Your task to perform on an android device: Search for vegetarian restaurants on Maps Image 0: 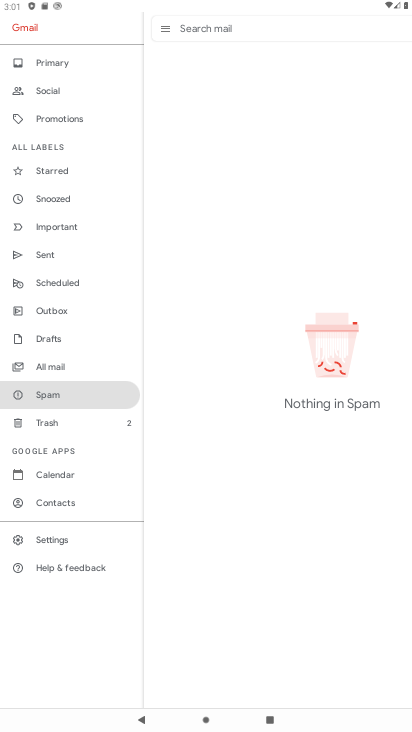
Step 0: press home button
Your task to perform on an android device: Search for vegetarian restaurants on Maps Image 1: 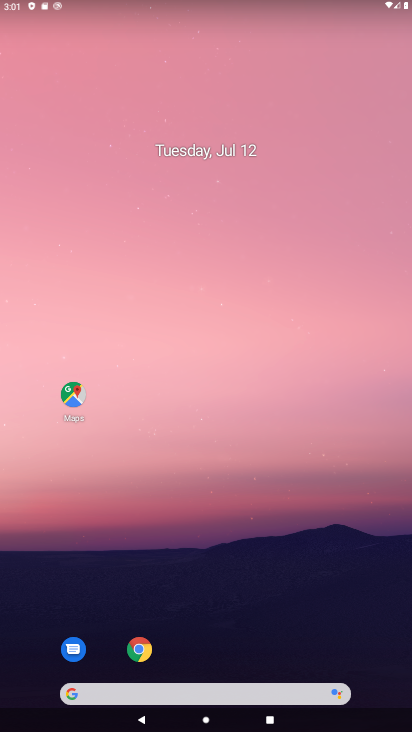
Step 1: click (79, 404)
Your task to perform on an android device: Search for vegetarian restaurants on Maps Image 2: 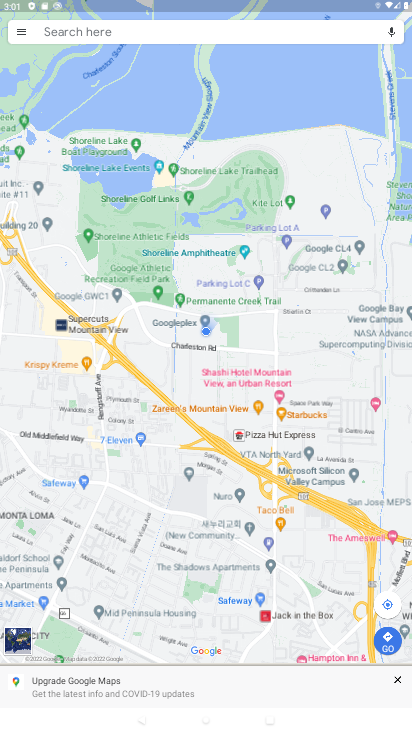
Step 2: click (92, 36)
Your task to perform on an android device: Search for vegetarian restaurants on Maps Image 3: 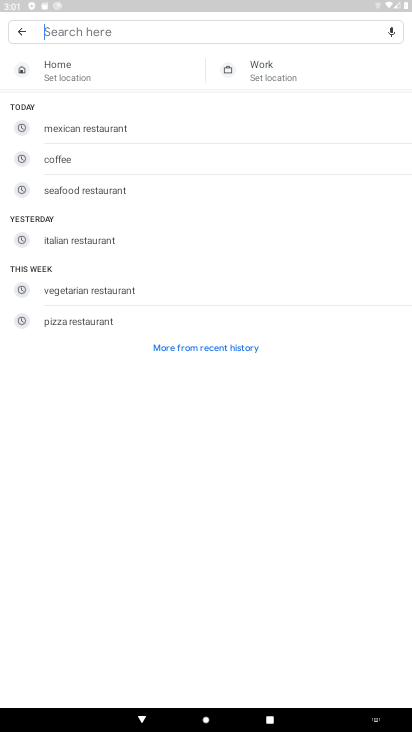
Step 3: click (101, 290)
Your task to perform on an android device: Search for vegetarian restaurants on Maps Image 4: 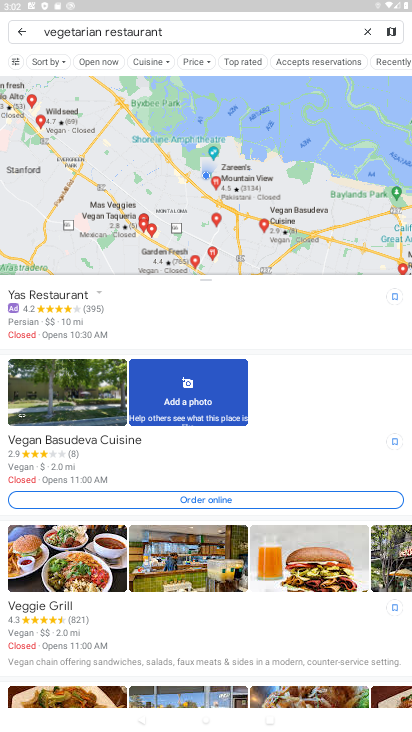
Step 4: task complete